Your task to perform on an android device: Open Google Chrome and click the shortcut for Amazon.com Image 0: 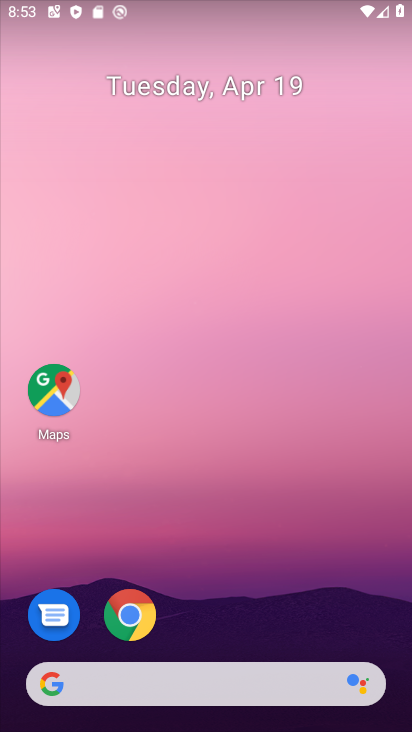
Step 0: click (125, 615)
Your task to perform on an android device: Open Google Chrome and click the shortcut for Amazon.com Image 1: 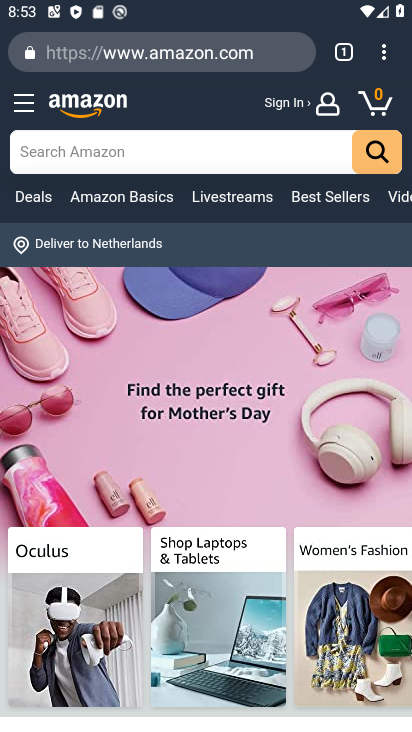
Step 1: click (125, 615)
Your task to perform on an android device: Open Google Chrome and click the shortcut for Amazon.com Image 2: 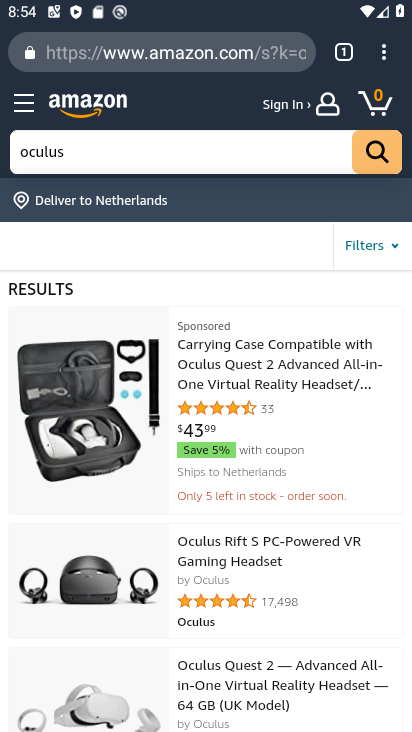
Step 2: click (336, 51)
Your task to perform on an android device: Open Google Chrome and click the shortcut for Amazon.com Image 3: 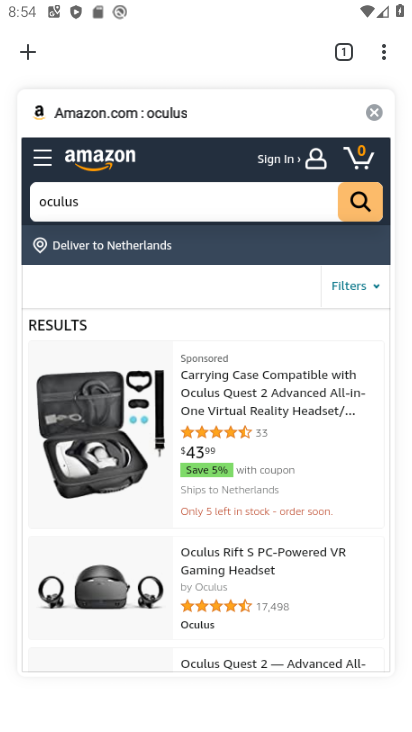
Step 3: click (36, 47)
Your task to perform on an android device: Open Google Chrome and click the shortcut for Amazon.com Image 4: 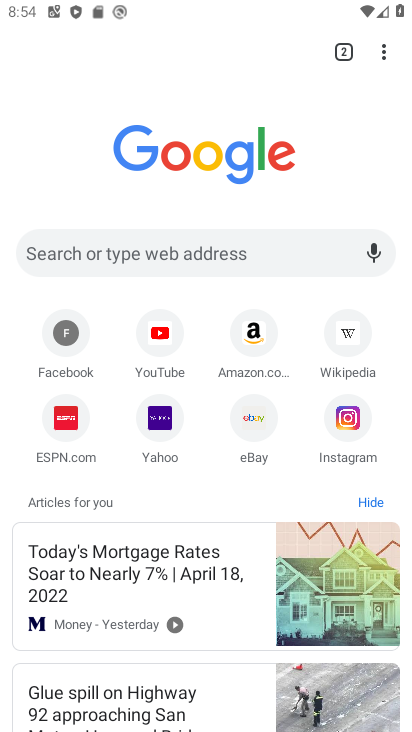
Step 4: click (262, 337)
Your task to perform on an android device: Open Google Chrome and click the shortcut for Amazon.com Image 5: 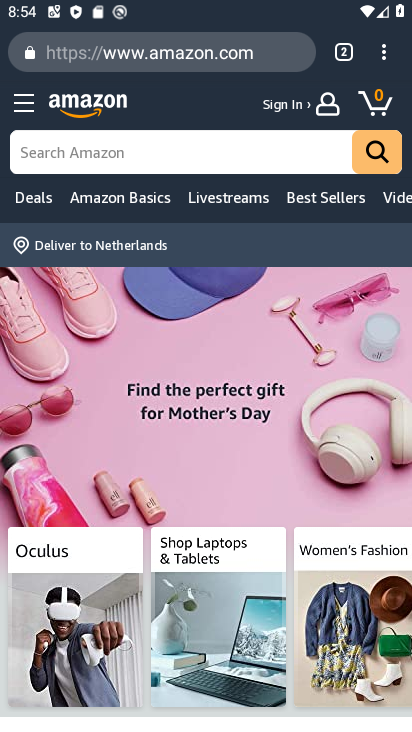
Step 5: task complete